Your task to perform on an android device: Open calendar and show me the first week of next month Image 0: 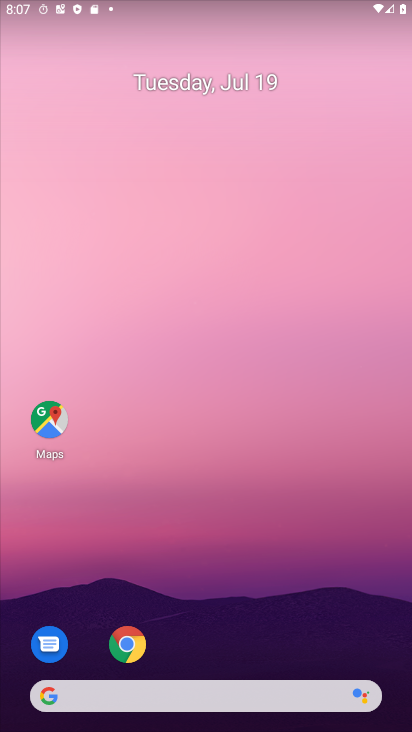
Step 0: drag from (179, 268) to (241, 100)
Your task to perform on an android device: Open calendar and show me the first week of next month Image 1: 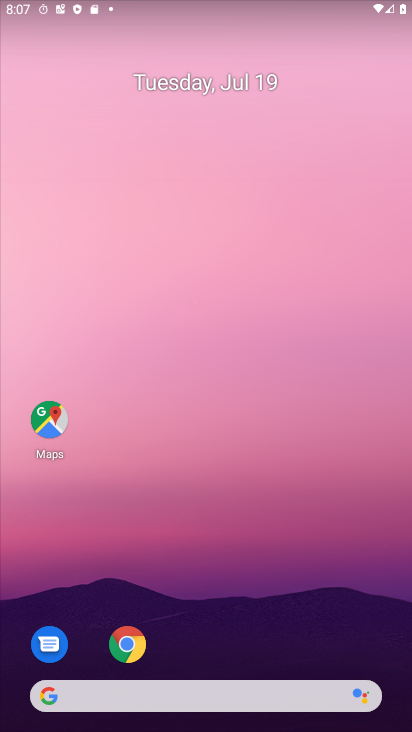
Step 1: drag from (184, 348) to (308, 55)
Your task to perform on an android device: Open calendar and show me the first week of next month Image 2: 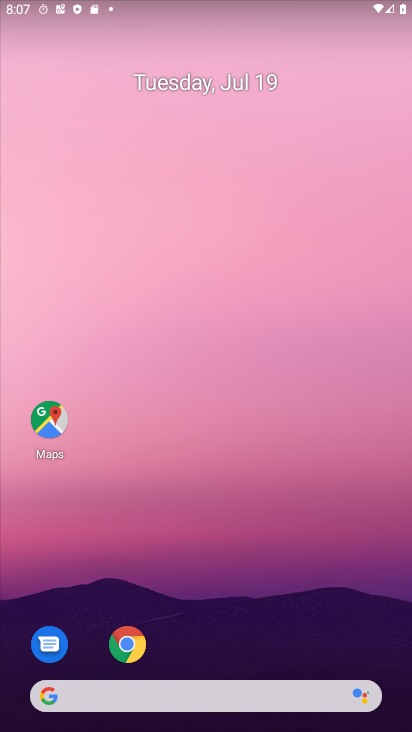
Step 2: drag from (34, 640) to (297, 13)
Your task to perform on an android device: Open calendar and show me the first week of next month Image 3: 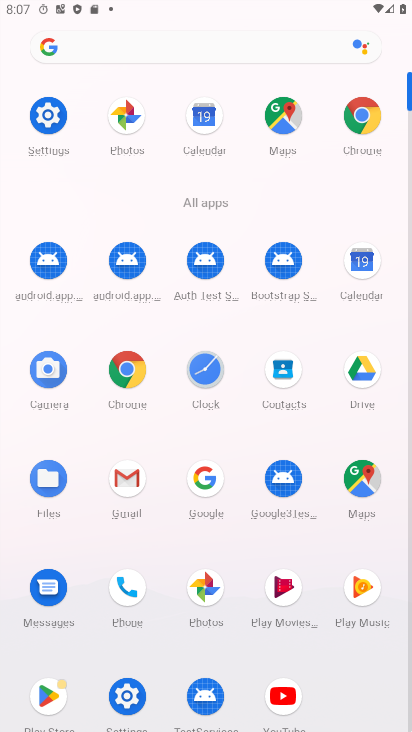
Step 3: click (361, 272)
Your task to perform on an android device: Open calendar and show me the first week of next month Image 4: 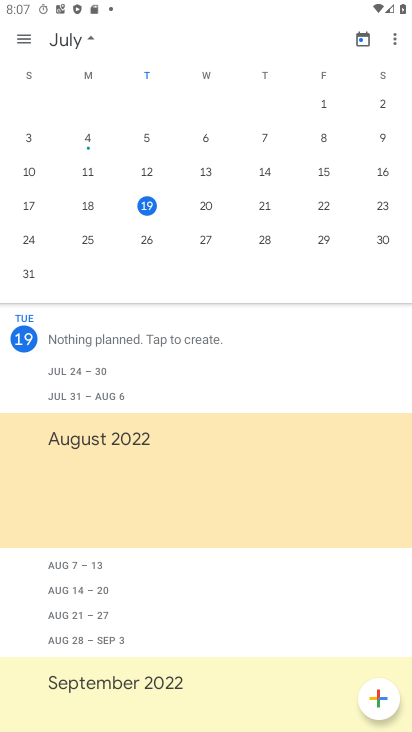
Step 4: task complete